Your task to perform on an android device: What is the news today? Image 0: 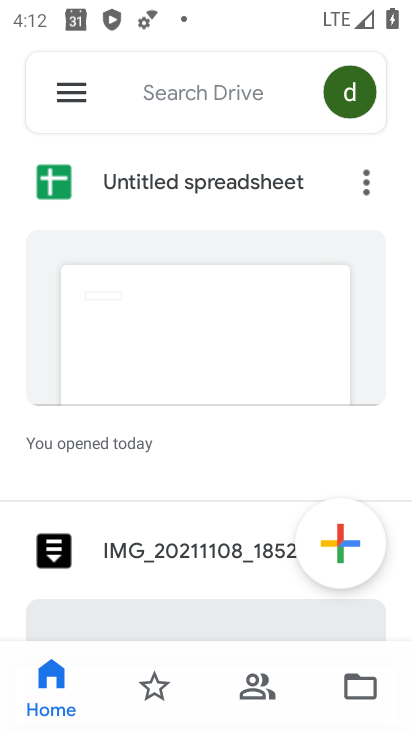
Step 0: press home button
Your task to perform on an android device: What is the news today? Image 1: 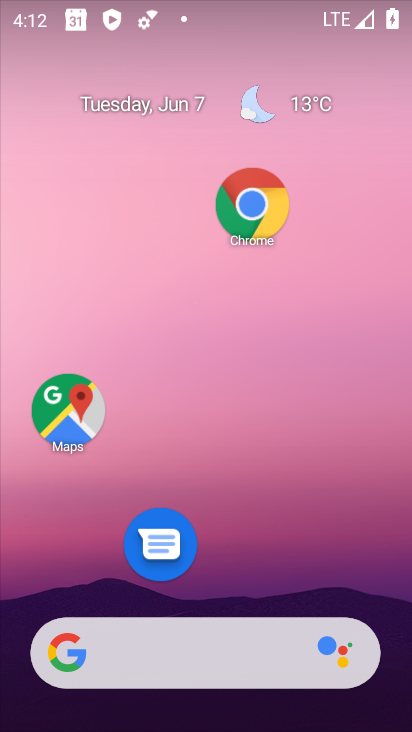
Step 1: task complete